Your task to perform on an android device: turn notification dots on Image 0: 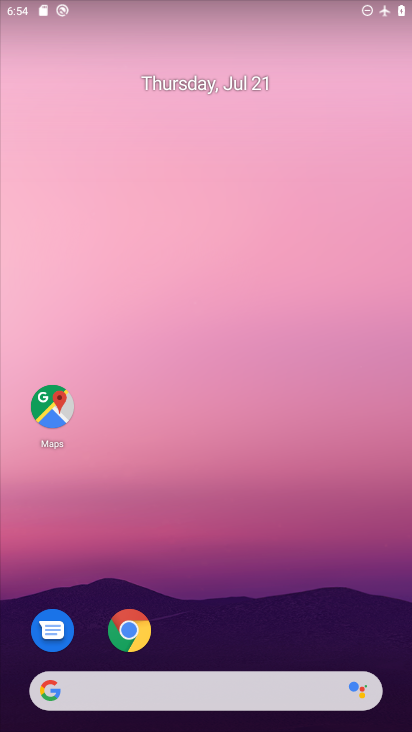
Step 0: drag from (172, 694) to (292, 166)
Your task to perform on an android device: turn notification dots on Image 1: 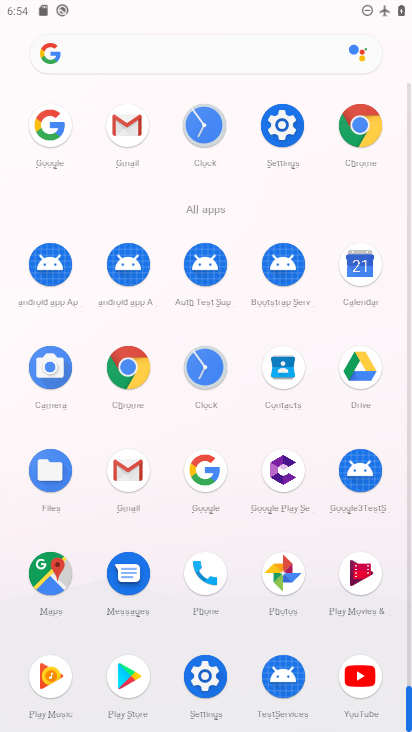
Step 1: click (282, 125)
Your task to perform on an android device: turn notification dots on Image 2: 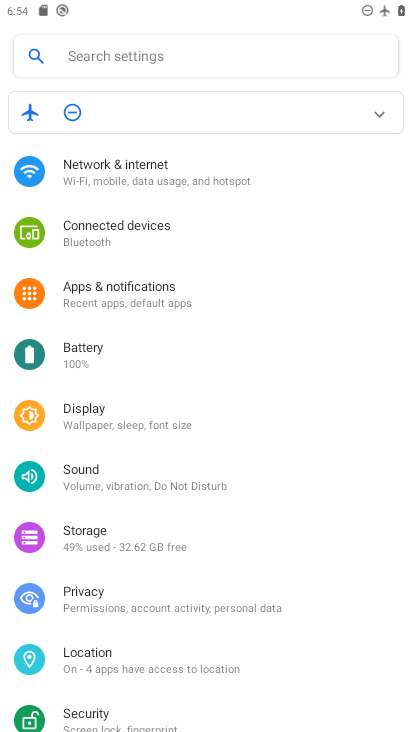
Step 2: click (120, 288)
Your task to perform on an android device: turn notification dots on Image 3: 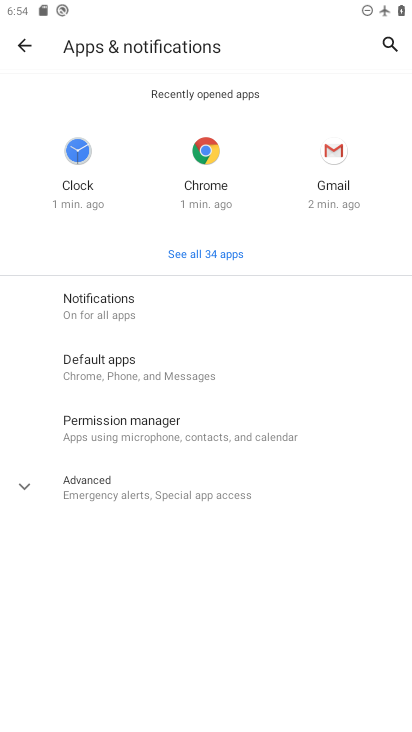
Step 3: click (93, 306)
Your task to perform on an android device: turn notification dots on Image 4: 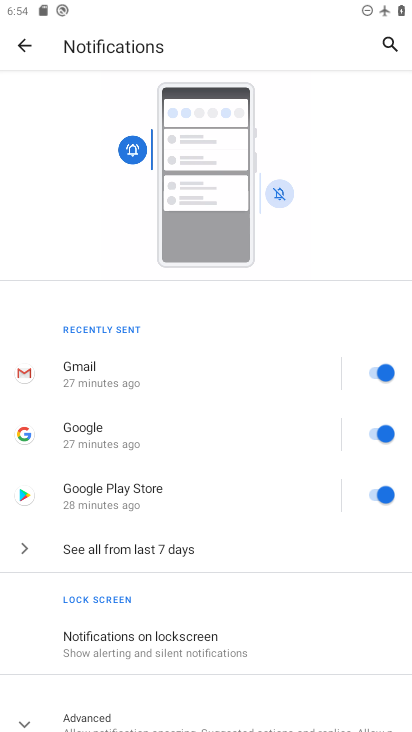
Step 4: drag from (124, 686) to (228, 520)
Your task to perform on an android device: turn notification dots on Image 5: 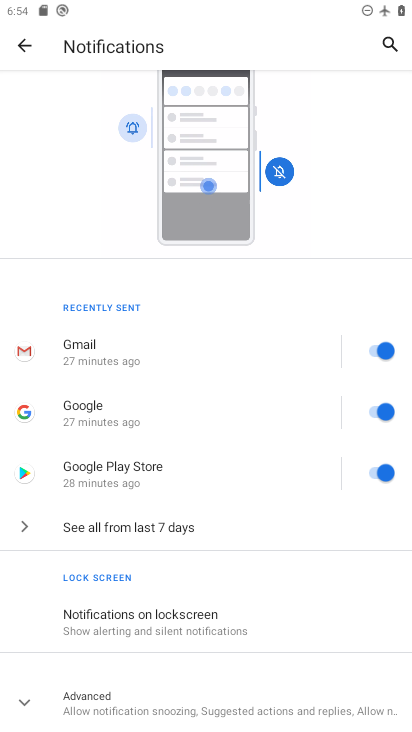
Step 5: click (189, 715)
Your task to perform on an android device: turn notification dots on Image 6: 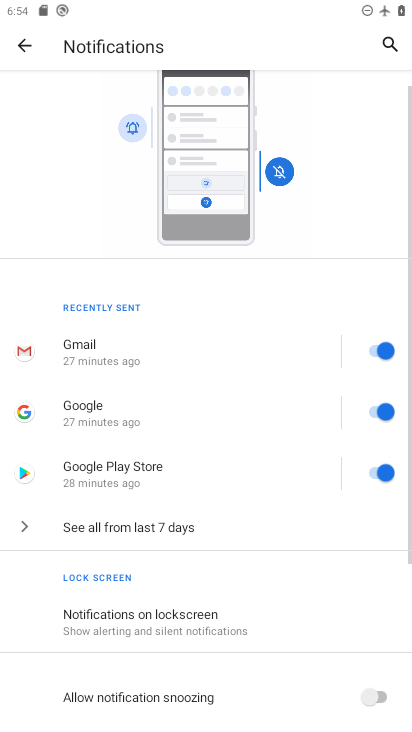
Step 6: task complete